Your task to perform on an android device: turn on sleep mode Image 0: 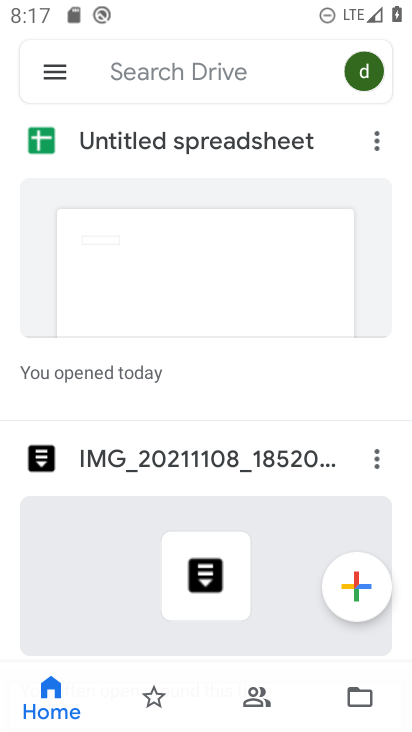
Step 0: press home button
Your task to perform on an android device: turn on sleep mode Image 1: 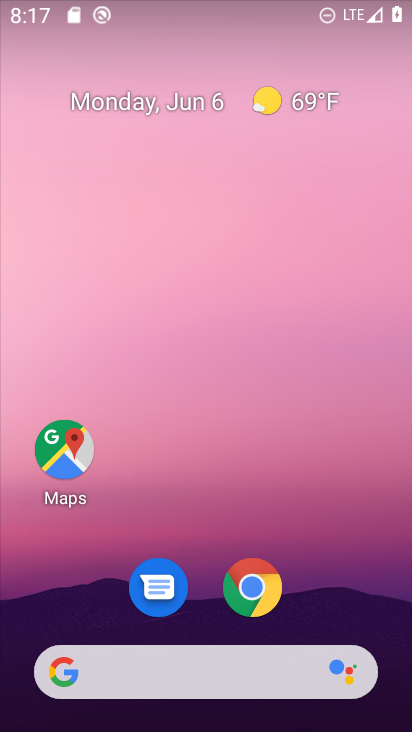
Step 1: drag from (324, 529) to (176, 101)
Your task to perform on an android device: turn on sleep mode Image 2: 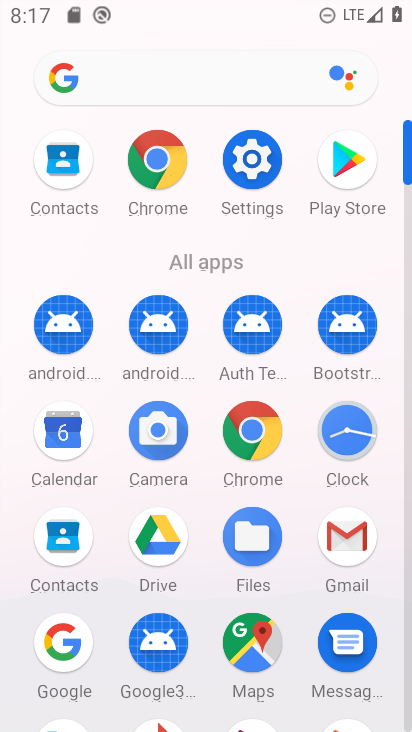
Step 2: click (254, 161)
Your task to perform on an android device: turn on sleep mode Image 3: 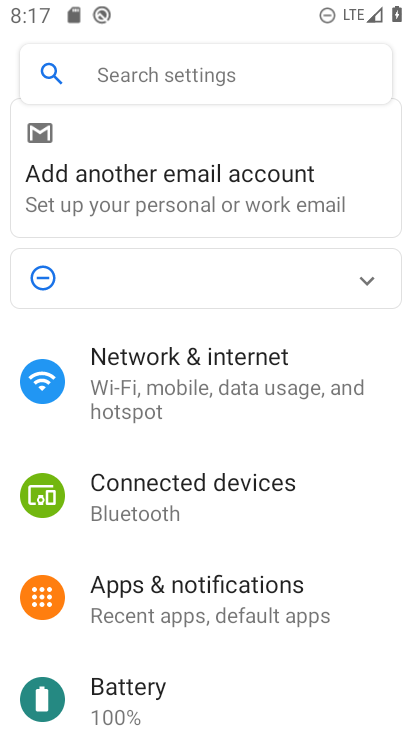
Step 3: drag from (247, 633) to (256, 442)
Your task to perform on an android device: turn on sleep mode Image 4: 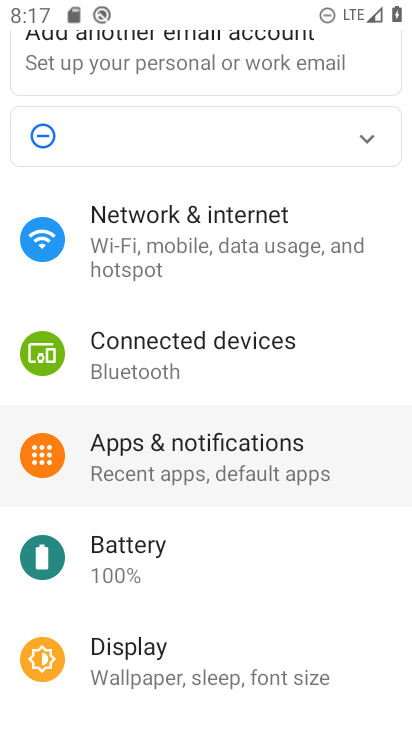
Step 4: click (284, 305)
Your task to perform on an android device: turn on sleep mode Image 5: 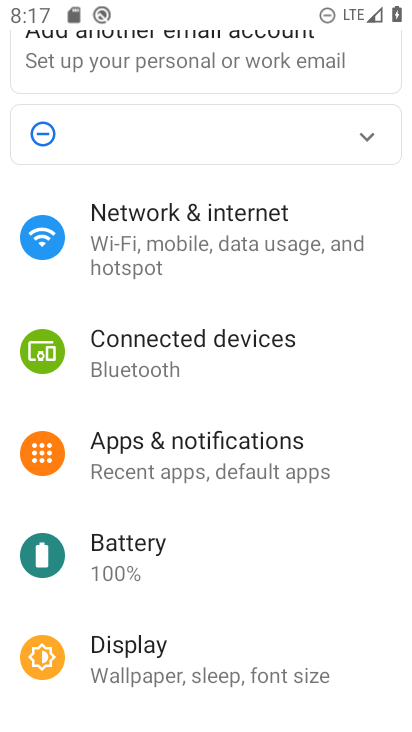
Step 5: click (171, 669)
Your task to perform on an android device: turn on sleep mode Image 6: 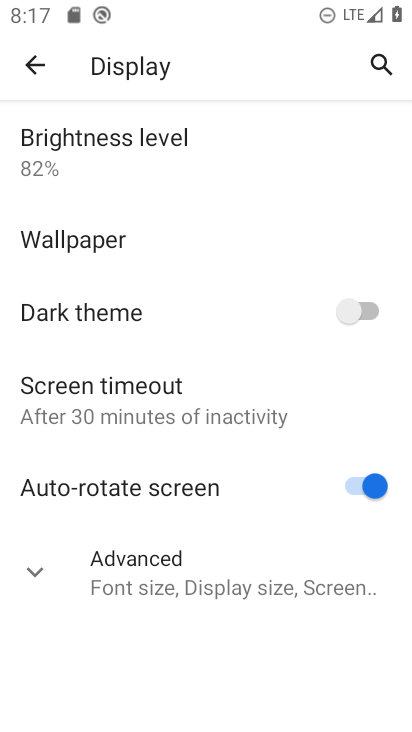
Step 6: click (164, 388)
Your task to perform on an android device: turn on sleep mode Image 7: 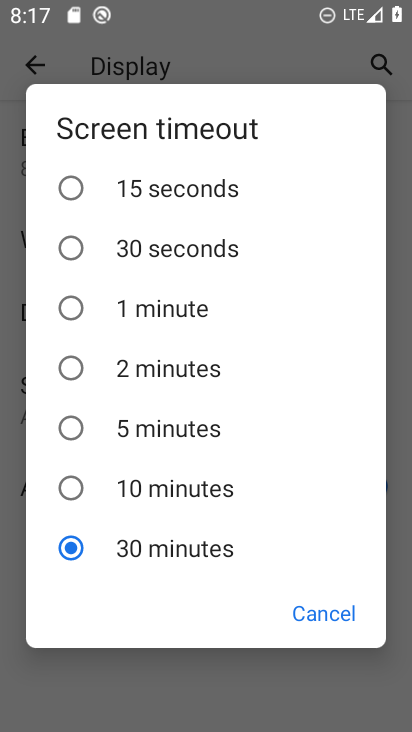
Step 7: task complete